Your task to perform on an android device: Go to Yahoo.com Image 0: 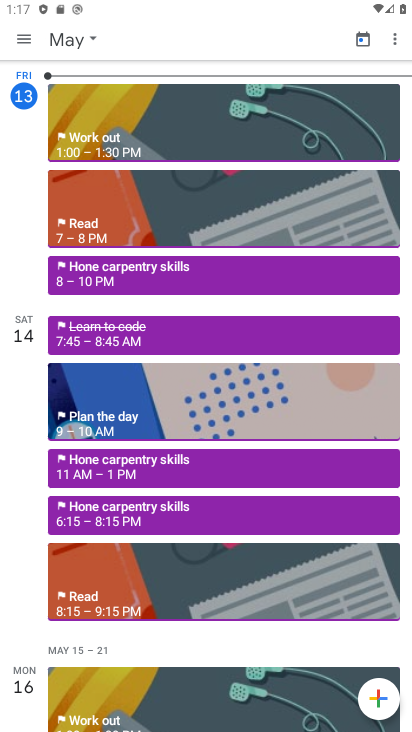
Step 0: press home button
Your task to perform on an android device: Go to Yahoo.com Image 1: 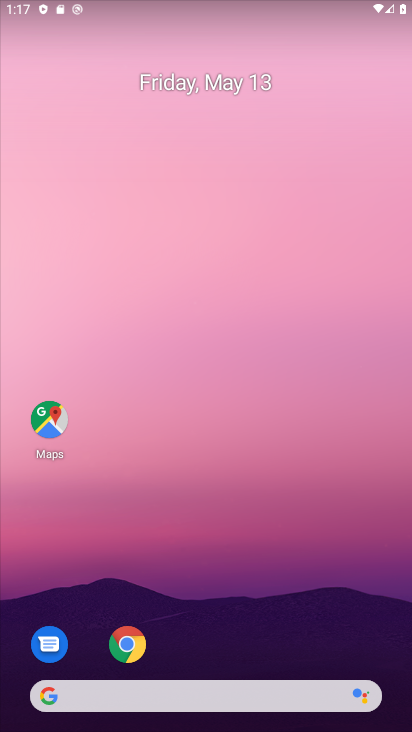
Step 1: click (120, 644)
Your task to perform on an android device: Go to Yahoo.com Image 2: 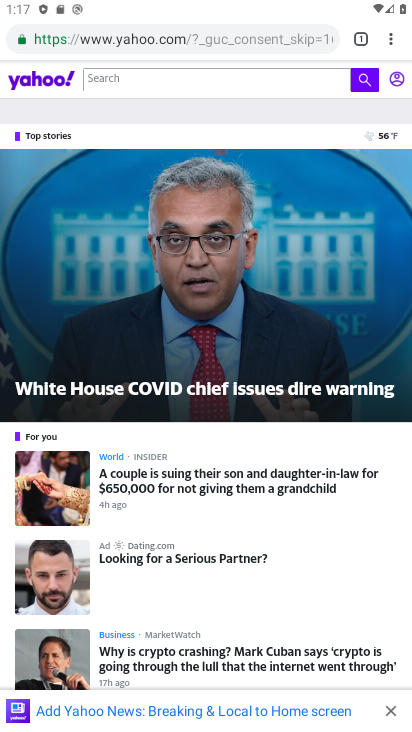
Step 2: task complete